Your task to perform on an android device: Open battery settings Image 0: 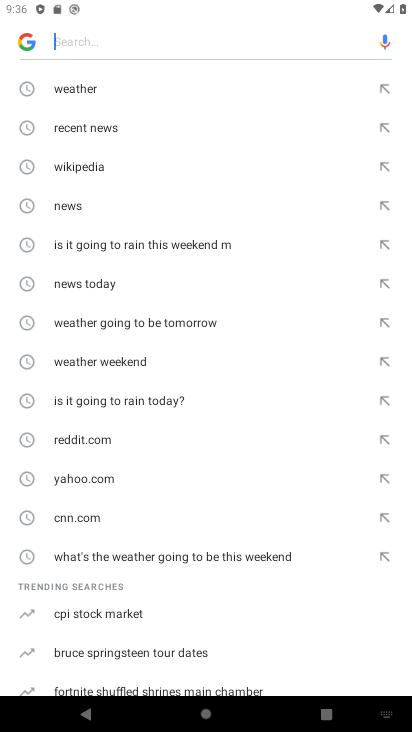
Step 0: press home button
Your task to perform on an android device: Open battery settings Image 1: 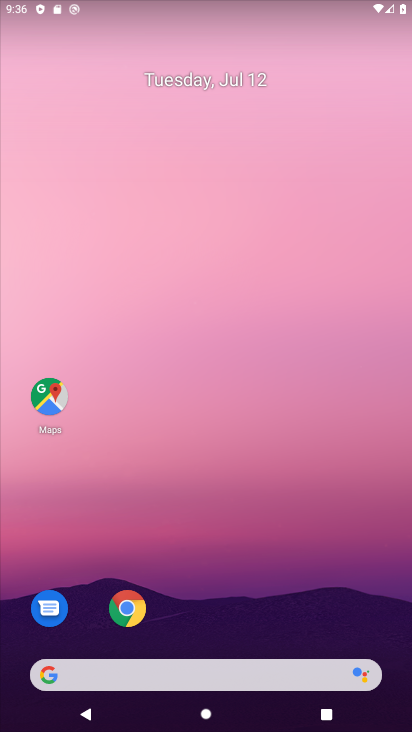
Step 1: drag from (309, 574) to (330, 49)
Your task to perform on an android device: Open battery settings Image 2: 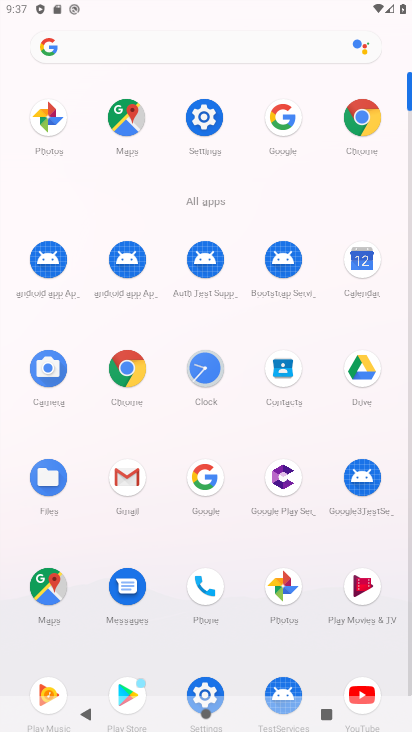
Step 2: click (201, 124)
Your task to perform on an android device: Open battery settings Image 3: 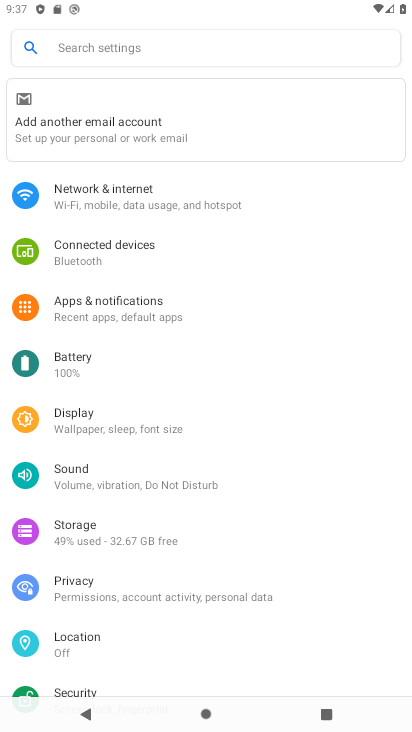
Step 3: click (118, 362)
Your task to perform on an android device: Open battery settings Image 4: 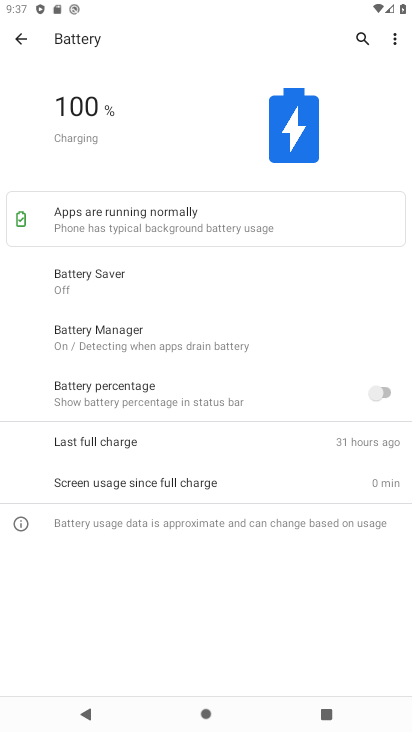
Step 4: task complete